Your task to perform on an android device: open app "The Home Depot" (install if not already installed) Image 0: 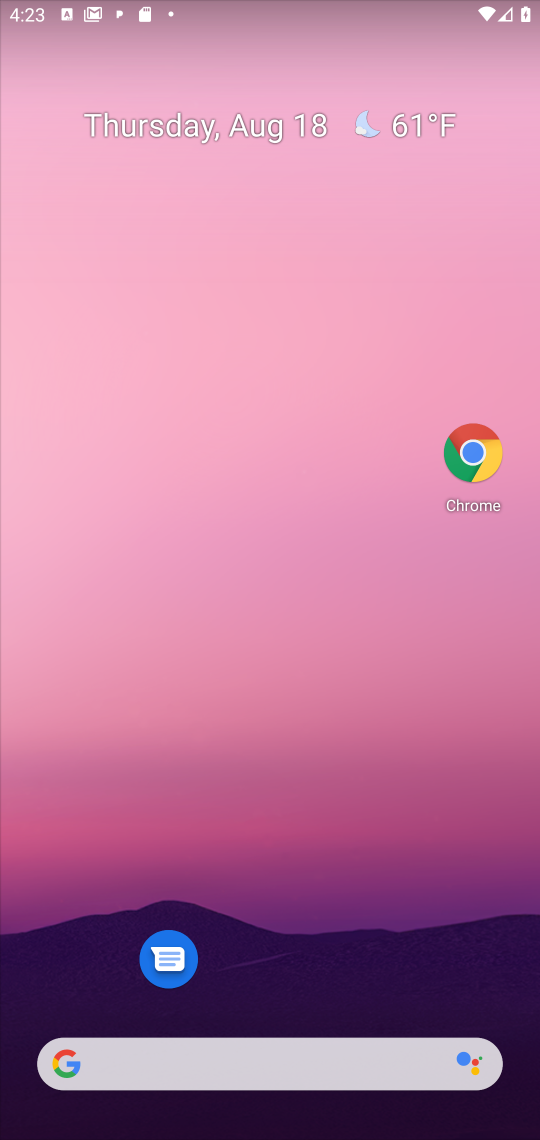
Step 0: drag from (325, 967) to (482, 246)
Your task to perform on an android device: open app "The Home Depot" (install if not already installed) Image 1: 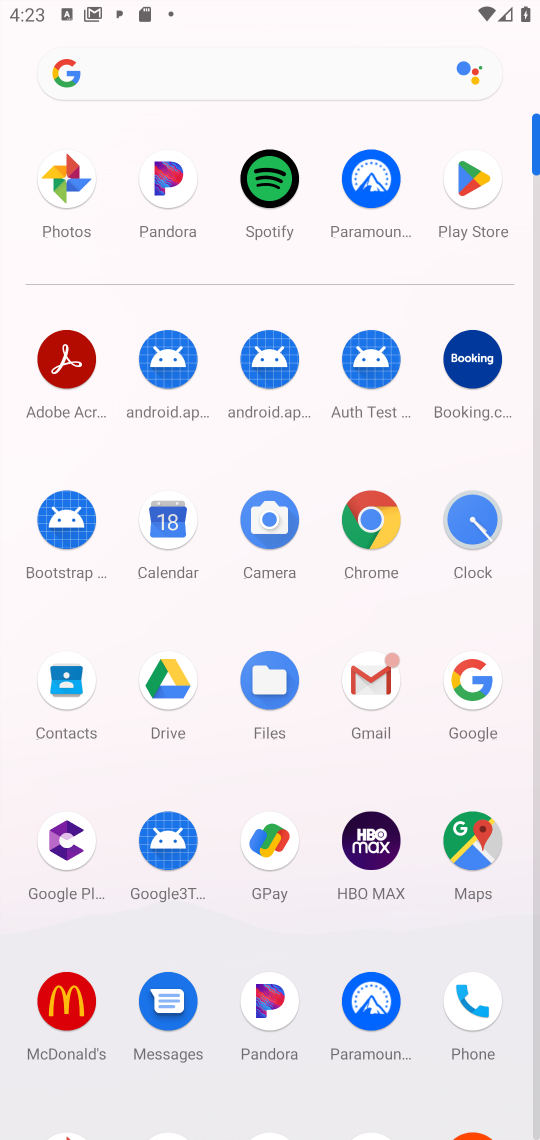
Step 1: click (456, 232)
Your task to perform on an android device: open app "The Home Depot" (install if not already installed) Image 2: 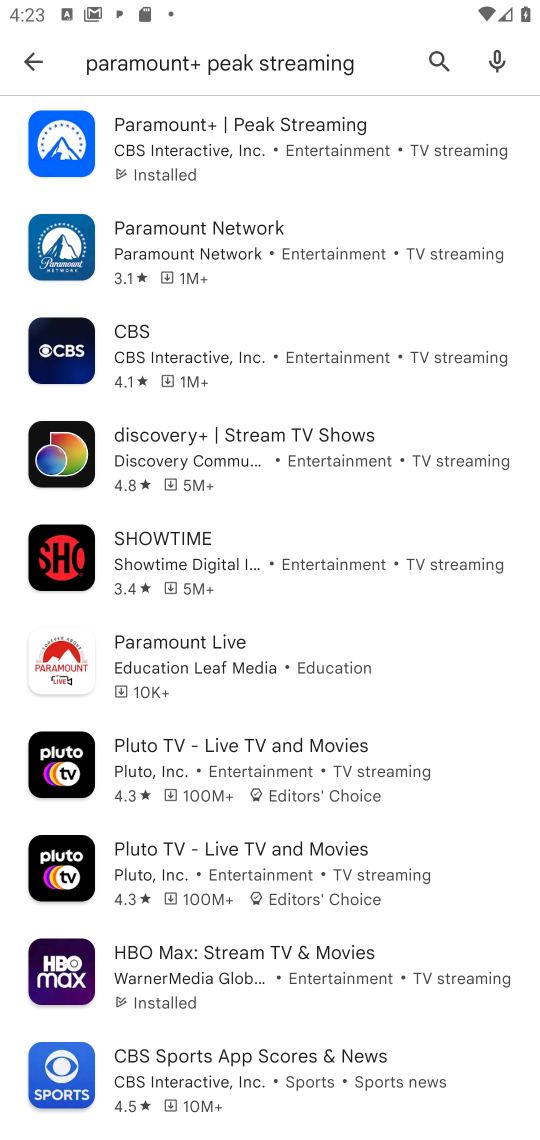
Step 2: click (21, 70)
Your task to perform on an android device: open app "The Home Depot" (install if not already installed) Image 3: 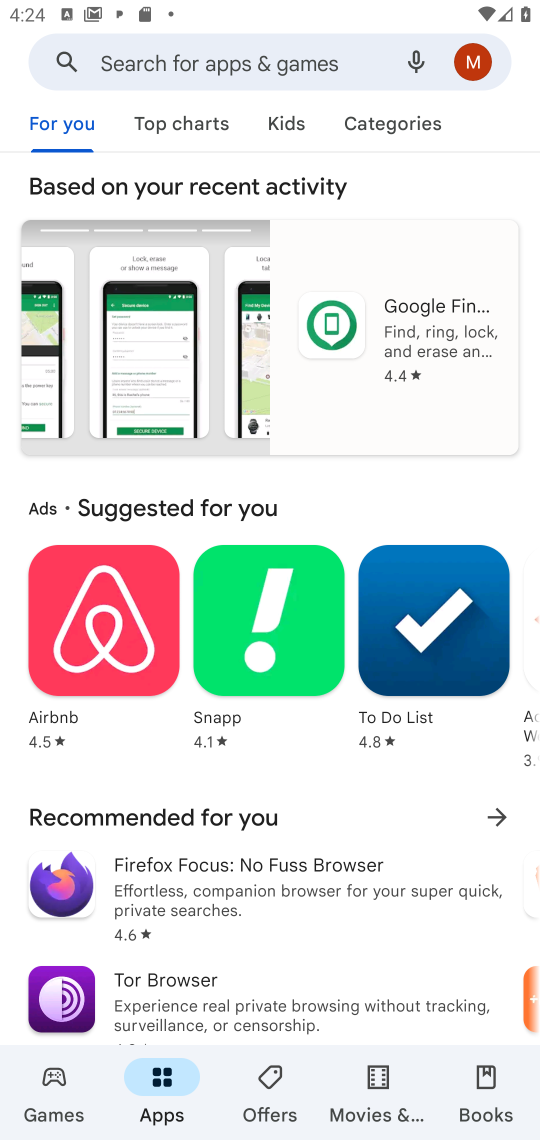
Step 3: click (222, 72)
Your task to perform on an android device: open app "The Home Depot" (install if not already installed) Image 4: 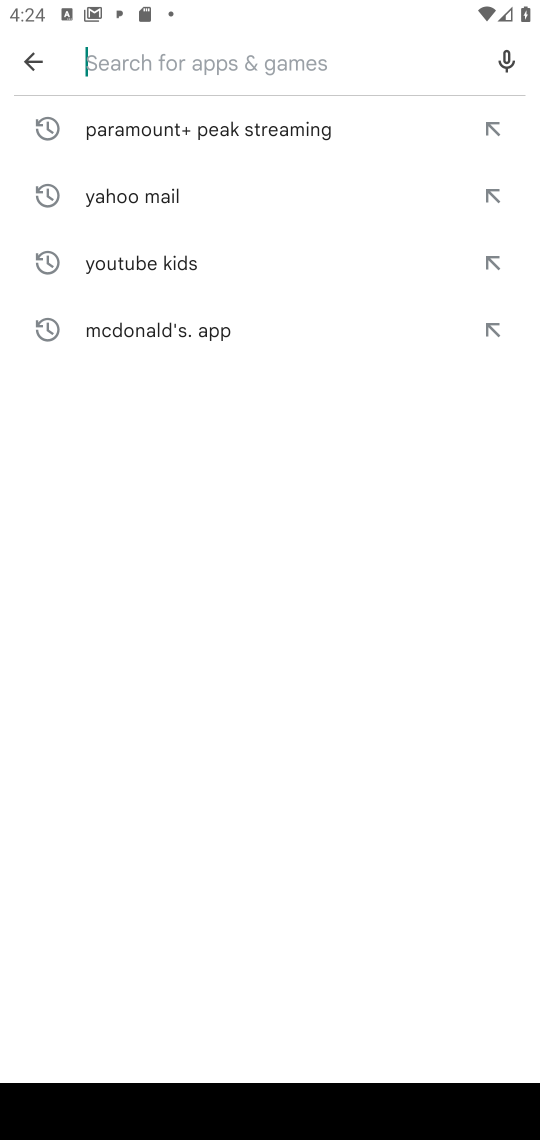
Step 4: type "The Home Depot"
Your task to perform on an android device: open app "The Home Depot" (install if not already installed) Image 5: 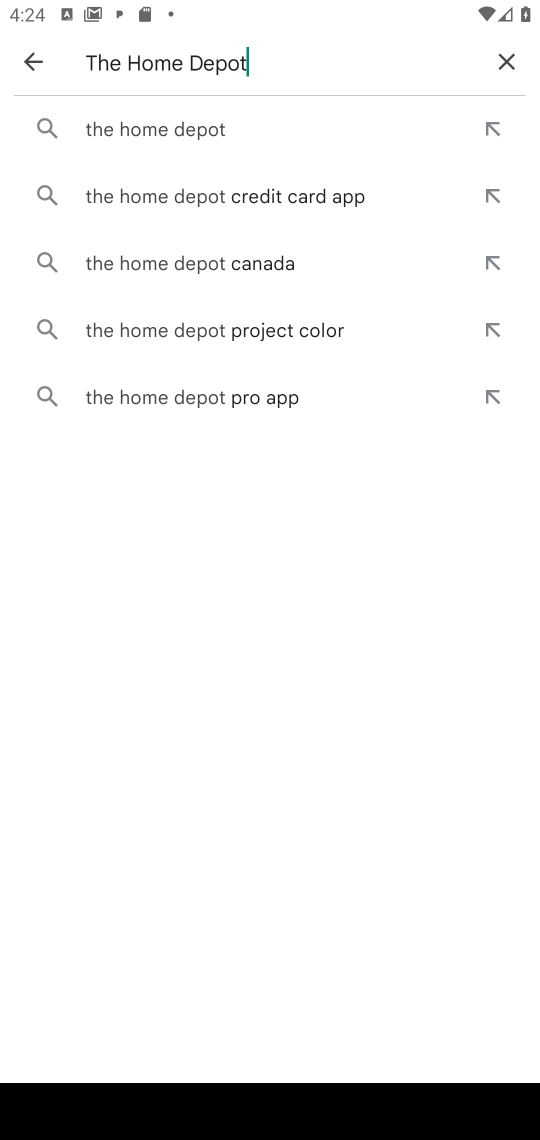
Step 5: click (166, 140)
Your task to perform on an android device: open app "The Home Depot" (install if not already installed) Image 6: 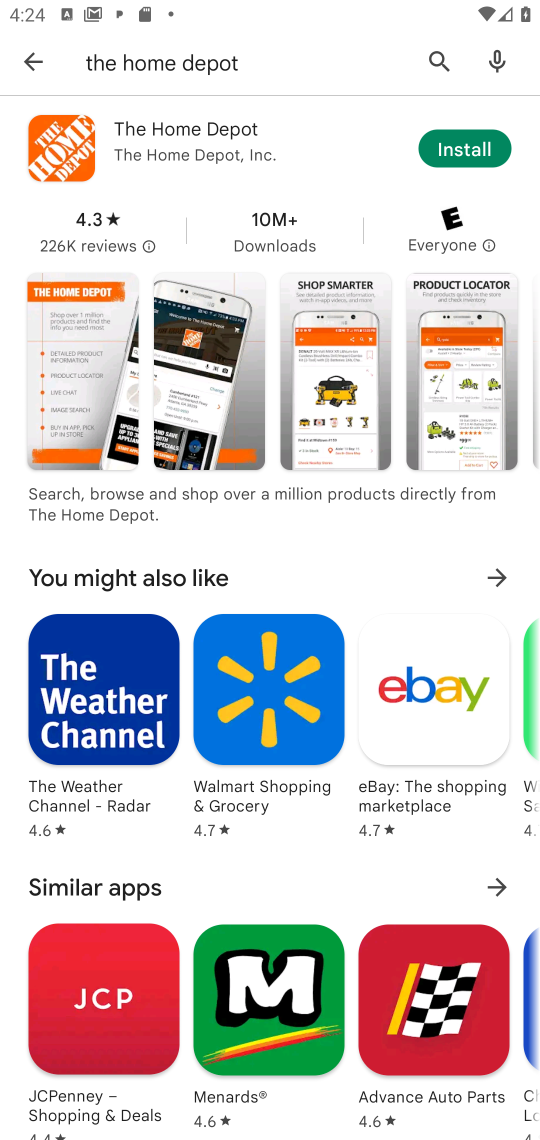
Step 6: click (486, 154)
Your task to perform on an android device: open app "The Home Depot" (install if not already installed) Image 7: 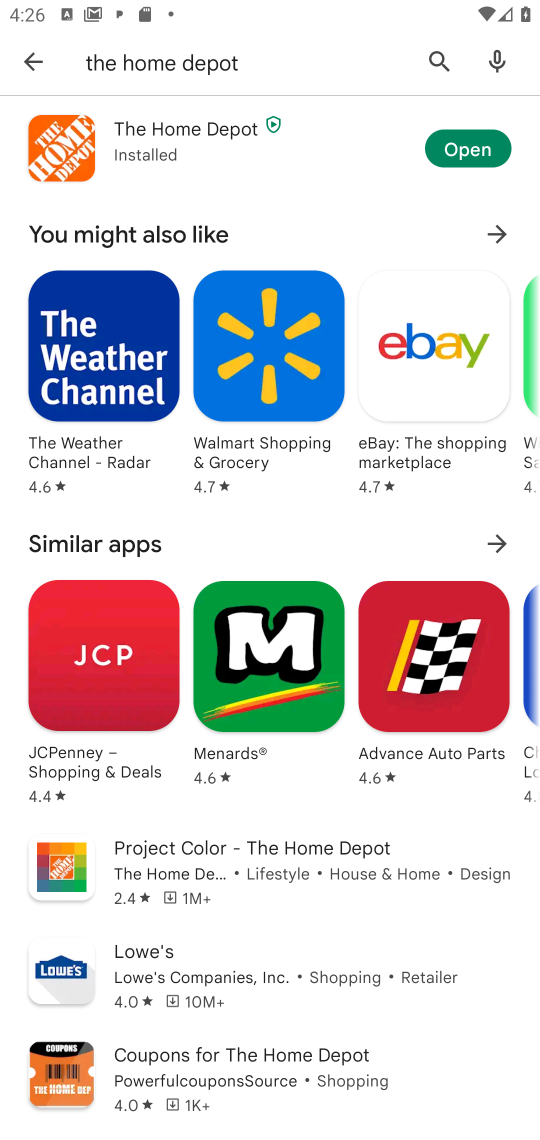
Step 7: click (452, 160)
Your task to perform on an android device: open app "The Home Depot" (install if not already installed) Image 8: 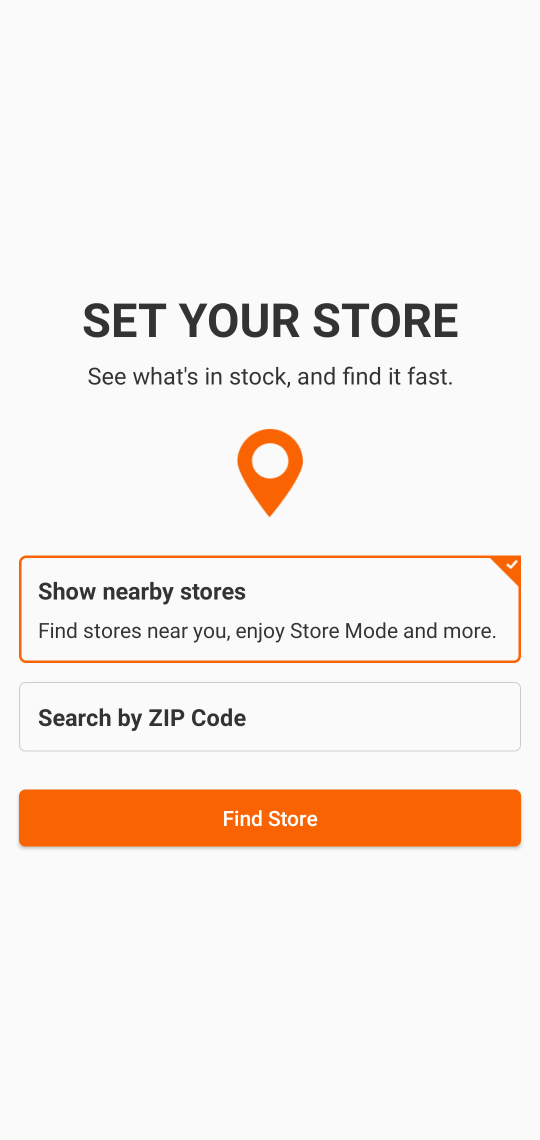
Step 8: task complete